Your task to perform on an android device: Go to location settings Image 0: 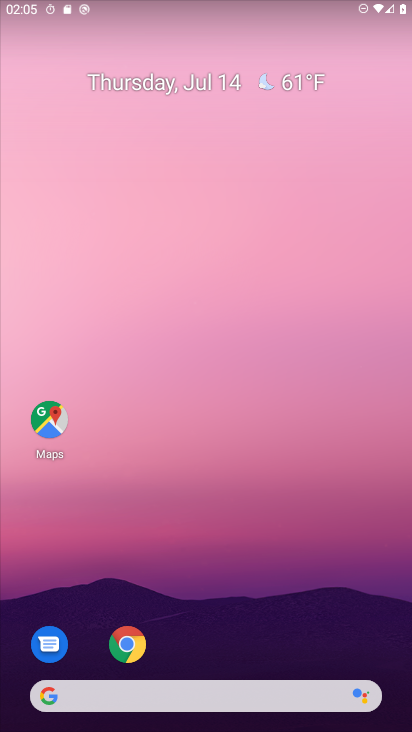
Step 0: drag from (300, 531) to (250, 116)
Your task to perform on an android device: Go to location settings Image 1: 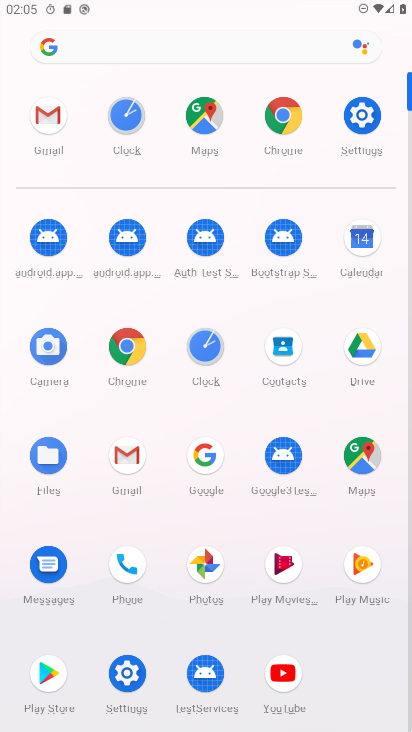
Step 1: click (365, 107)
Your task to perform on an android device: Go to location settings Image 2: 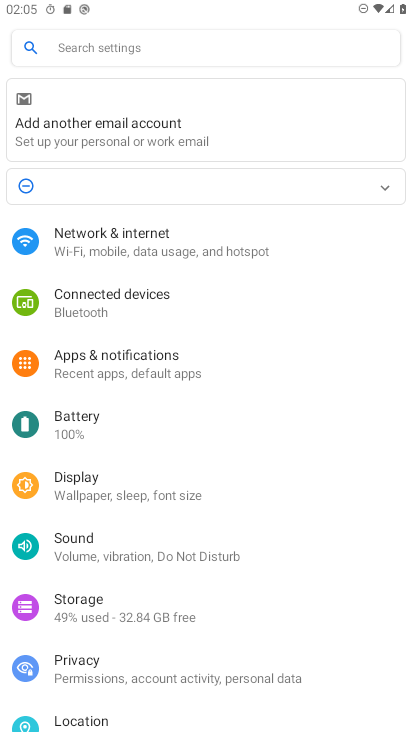
Step 2: click (79, 729)
Your task to perform on an android device: Go to location settings Image 3: 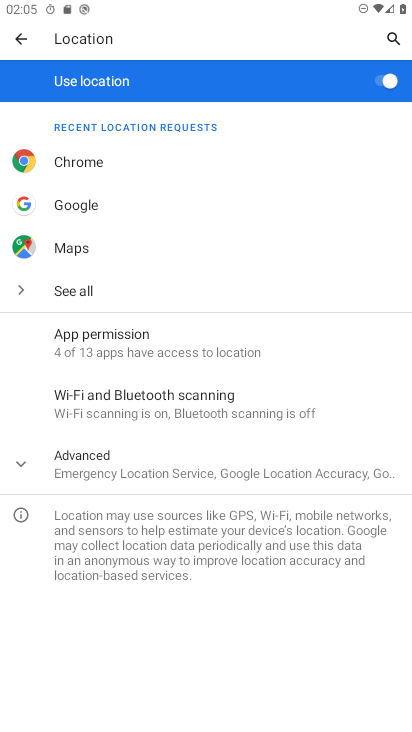
Step 3: task complete